Your task to perform on an android device: all mails in gmail Image 0: 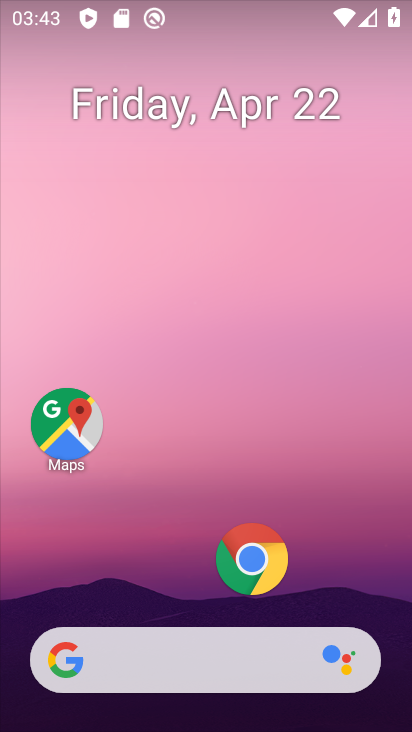
Step 0: click (341, 175)
Your task to perform on an android device: all mails in gmail Image 1: 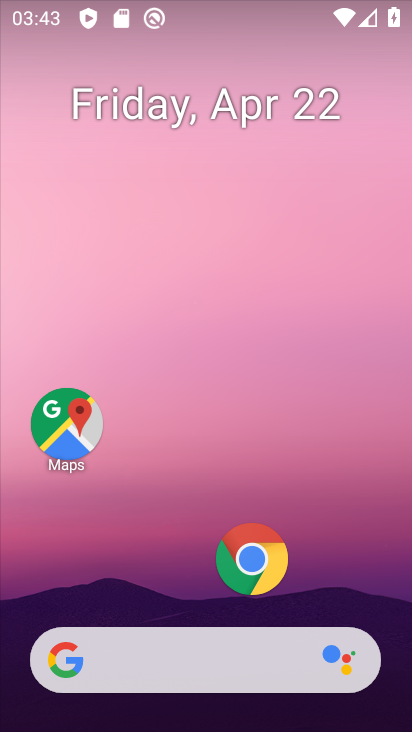
Step 1: drag from (164, 586) to (240, 283)
Your task to perform on an android device: all mails in gmail Image 2: 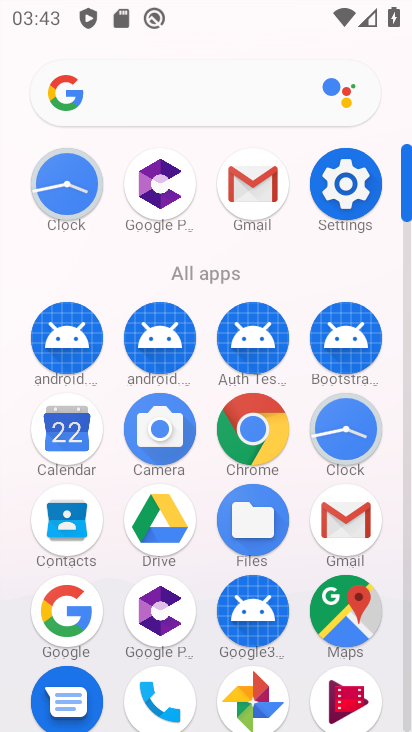
Step 2: click (348, 529)
Your task to perform on an android device: all mails in gmail Image 3: 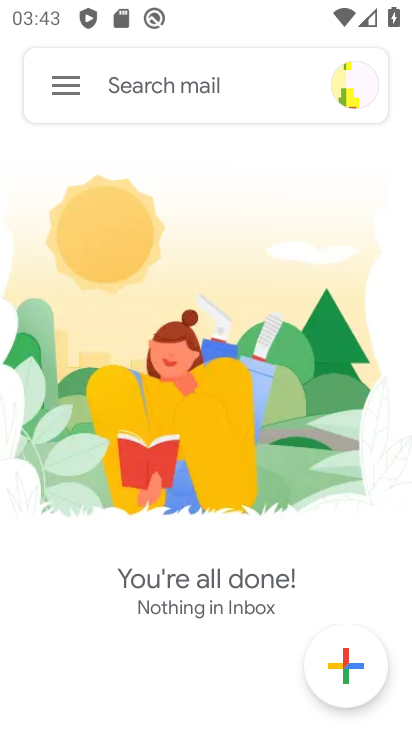
Step 3: click (70, 83)
Your task to perform on an android device: all mails in gmail Image 4: 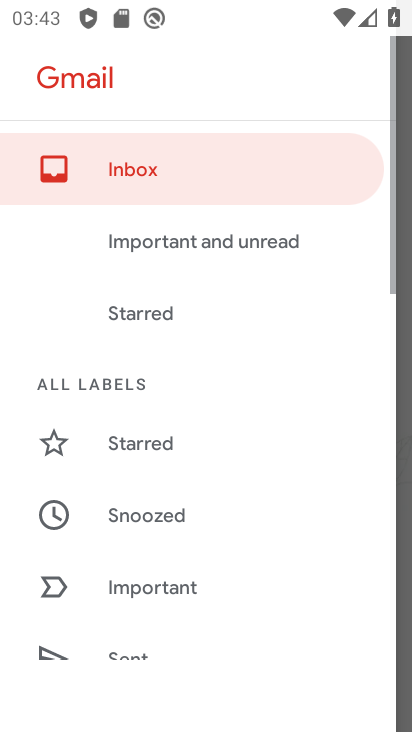
Step 4: drag from (135, 561) to (204, 89)
Your task to perform on an android device: all mails in gmail Image 5: 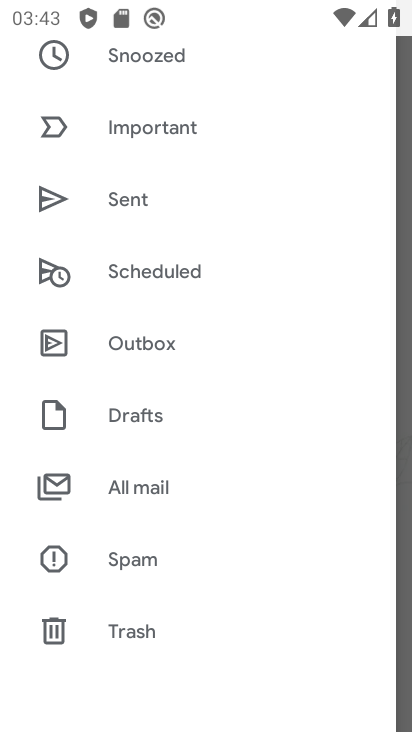
Step 5: click (139, 474)
Your task to perform on an android device: all mails in gmail Image 6: 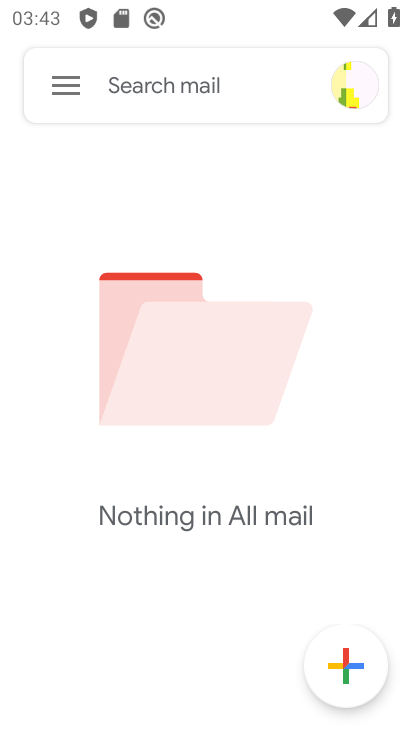
Step 6: task complete